Your task to perform on an android device: What's the weather today? Image 0: 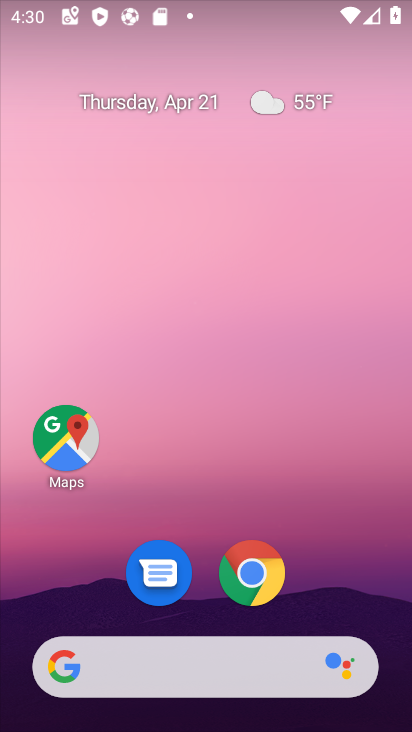
Step 0: drag from (407, 601) to (240, 161)
Your task to perform on an android device: What's the weather today? Image 1: 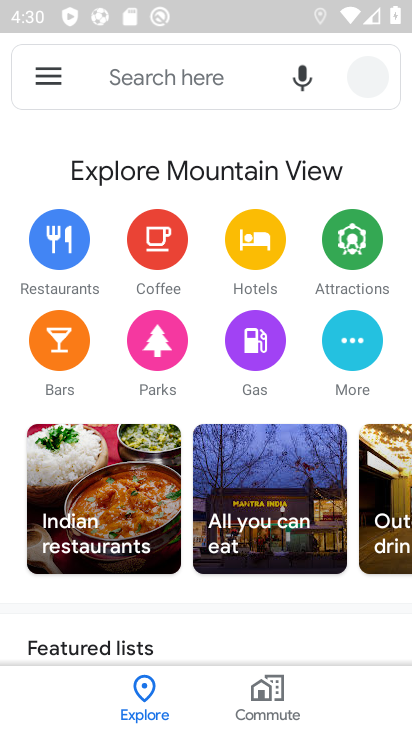
Step 1: press home button
Your task to perform on an android device: What's the weather today? Image 2: 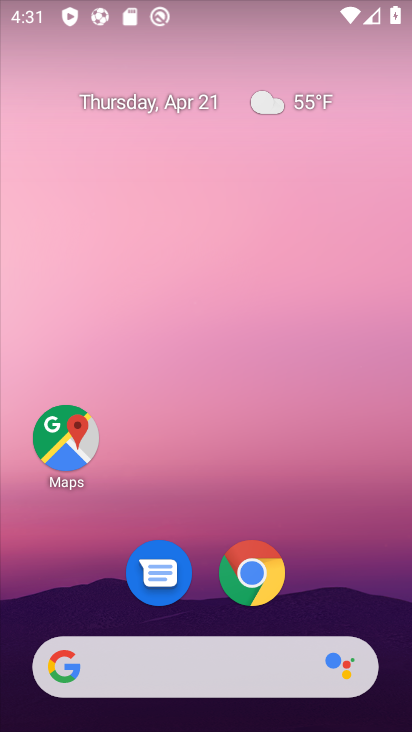
Step 2: drag from (354, 598) to (236, 196)
Your task to perform on an android device: What's the weather today? Image 3: 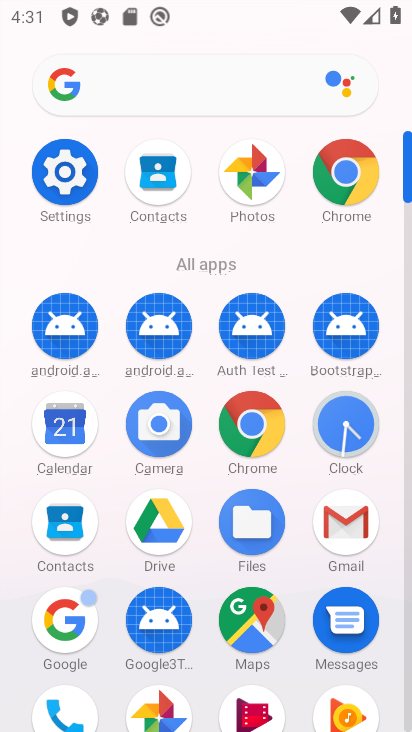
Step 3: click (347, 186)
Your task to perform on an android device: What's the weather today? Image 4: 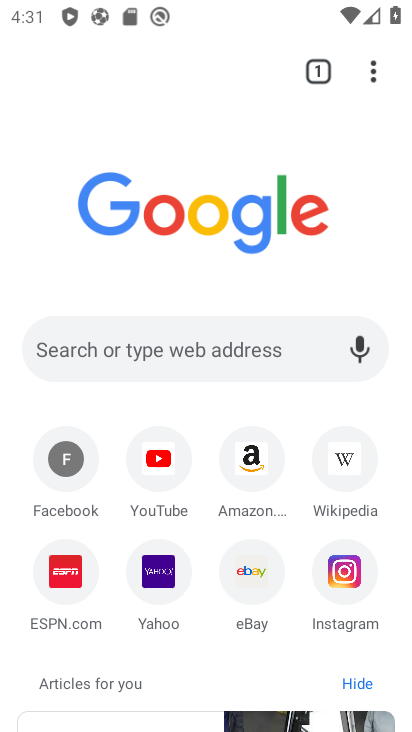
Step 4: click (209, 355)
Your task to perform on an android device: What's the weather today? Image 5: 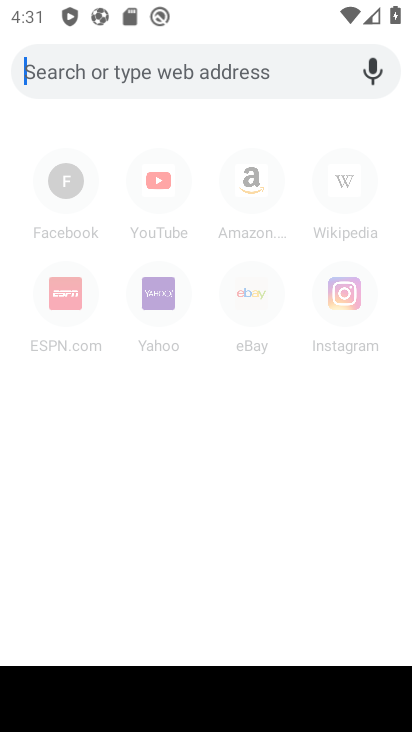
Step 5: type "What's the weather today?"
Your task to perform on an android device: What's the weather today? Image 6: 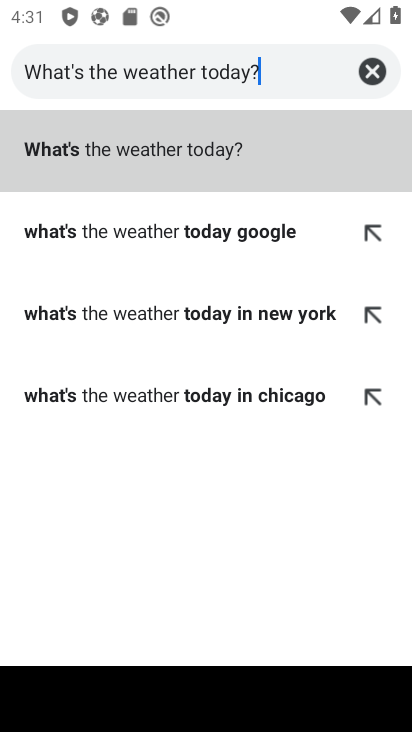
Step 6: click (106, 157)
Your task to perform on an android device: What's the weather today? Image 7: 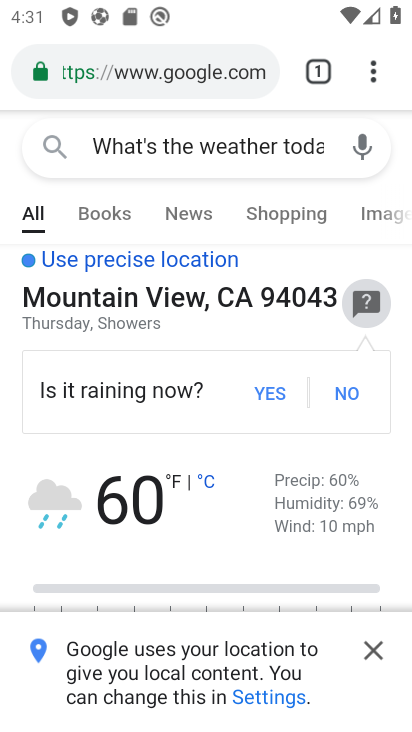
Step 7: task complete